Your task to perform on an android device: Open battery settings Image 0: 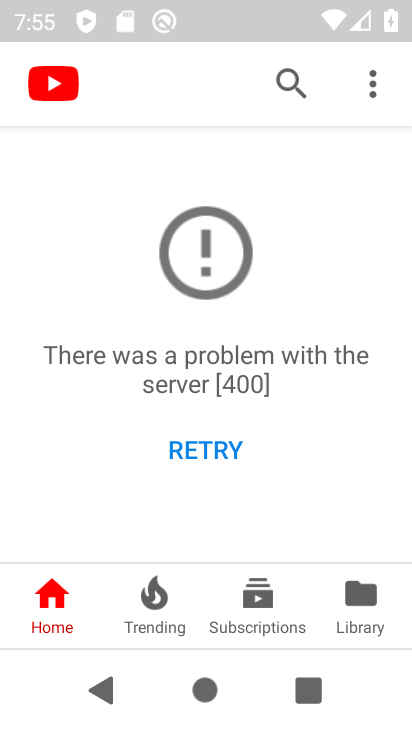
Step 0: press back button
Your task to perform on an android device: Open battery settings Image 1: 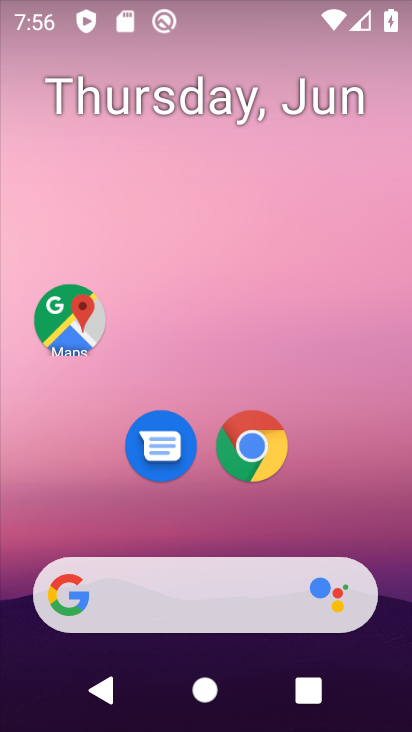
Step 1: drag from (184, 543) to (203, 90)
Your task to perform on an android device: Open battery settings Image 2: 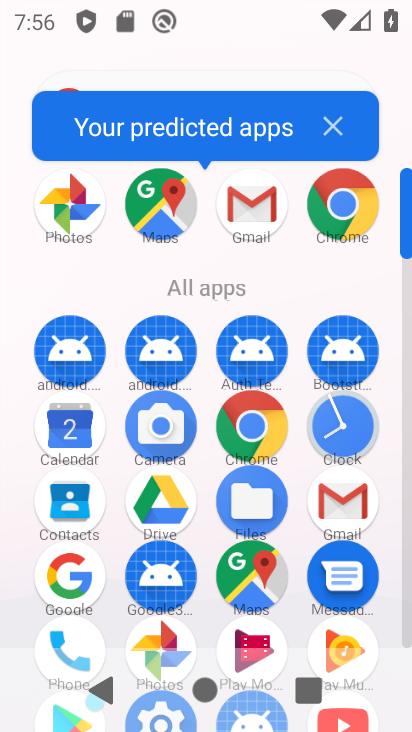
Step 2: drag from (200, 548) to (236, 169)
Your task to perform on an android device: Open battery settings Image 3: 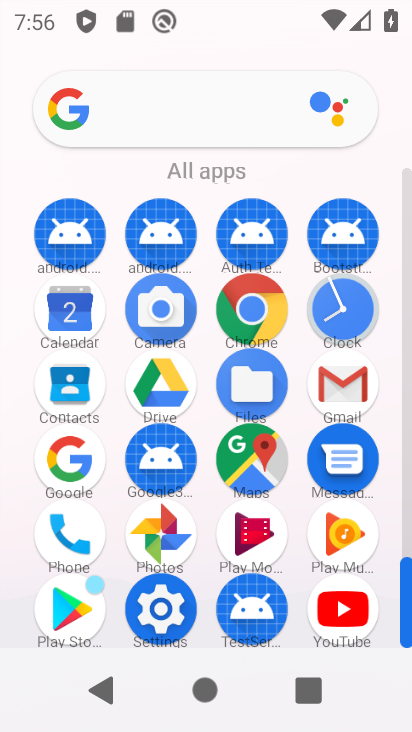
Step 3: click (172, 613)
Your task to perform on an android device: Open battery settings Image 4: 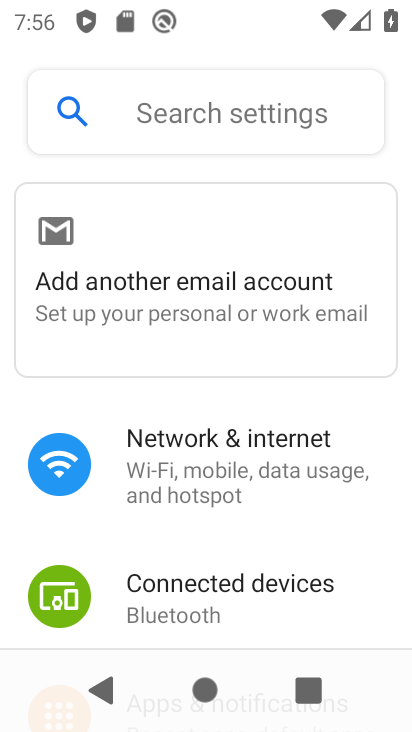
Step 4: drag from (188, 601) to (239, 198)
Your task to perform on an android device: Open battery settings Image 5: 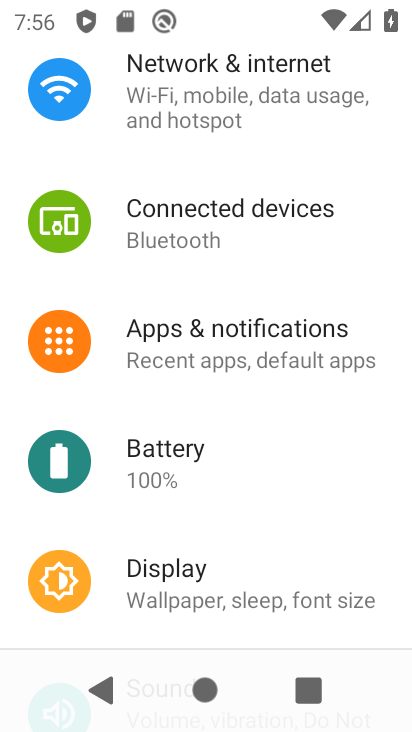
Step 5: click (156, 464)
Your task to perform on an android device: Open battery settings Image 6: 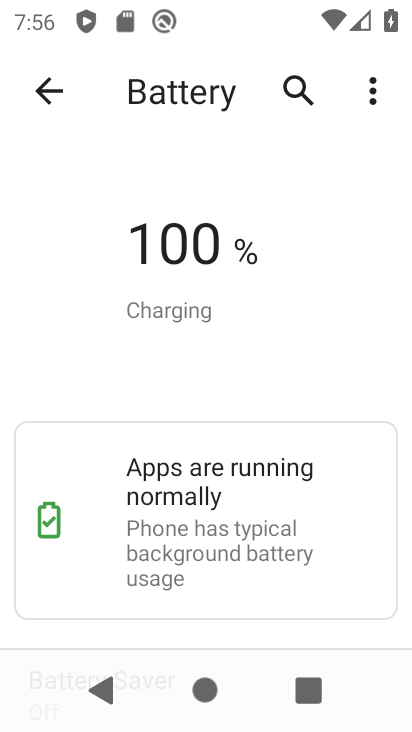
Step 6: task complete